Your task to perform on an android device: Search for vegetarian restaurants on Maps Image 0: 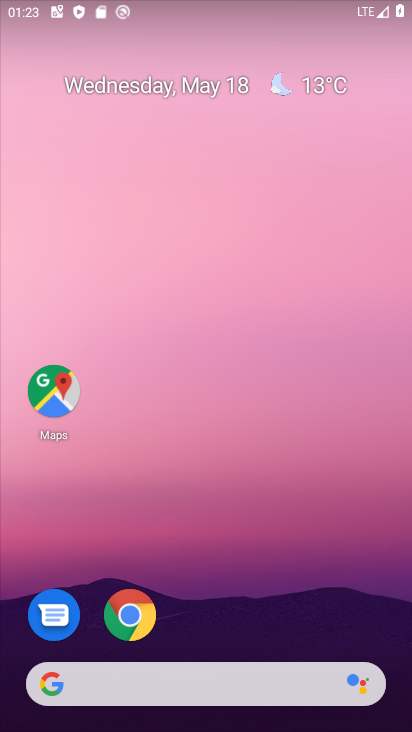
Step 0: press home button
Your task to perform on an android device: Search for vegetarian restaurants on Maps Image 1: 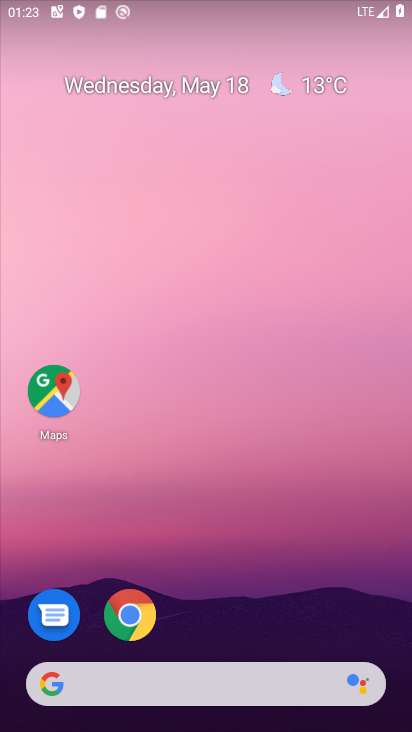
Step 1: click (58, 398)
Your task to perform on an android device: Search for vegetarian restaurants on Maps Image 2: 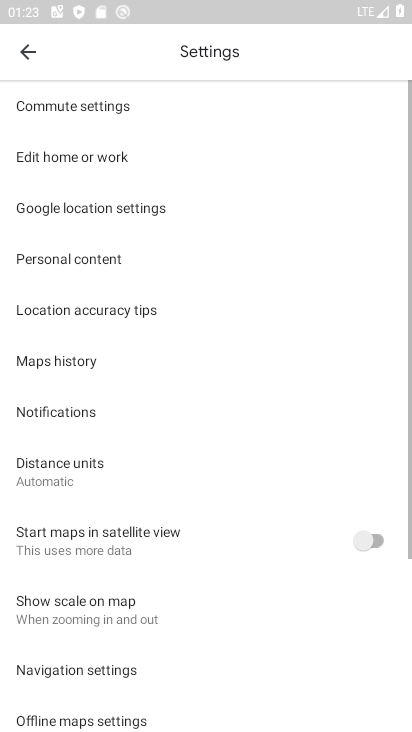
Step 2: click (30, 45)
Your task to perform on an android device: Search for vegetarian restaurants on Maps Image 3: 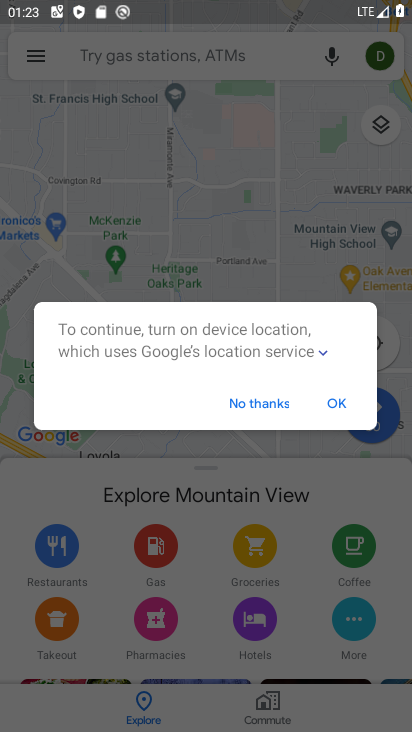
Step 3: click (333, 403)
Your task to perform on an android device: Search for vegetarian restaurants on Maps Image 4: 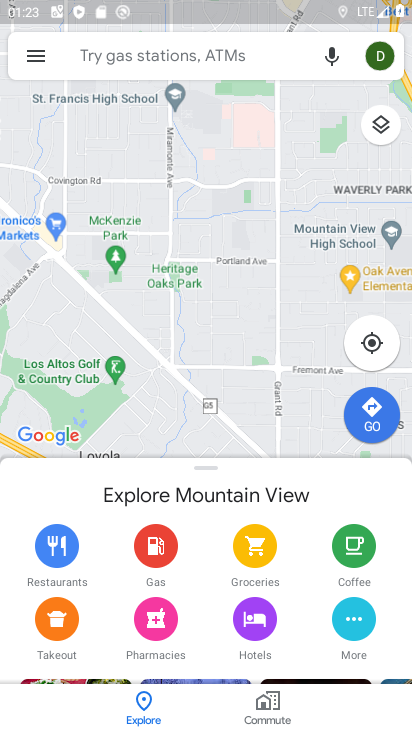
Step 4: click (212, 53)
Your task to perform on an android device: Search for vegetarian restaurants on Maps Image 5: 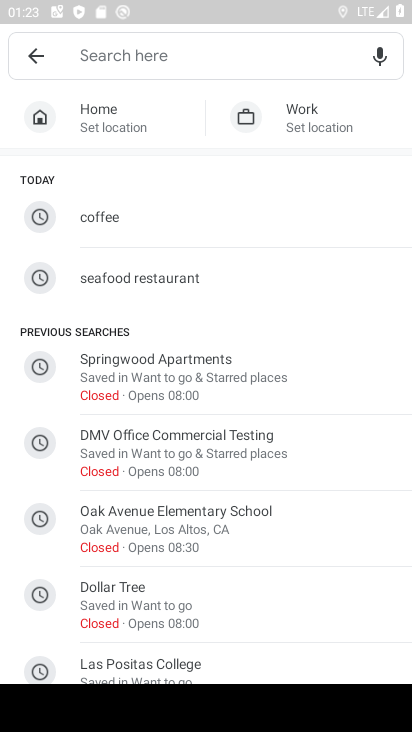
Step 5: drag from (240, 575) to (321, 254)
Your task to perform on an android device: Search for vegetarian restaurants on Maps Image 6: 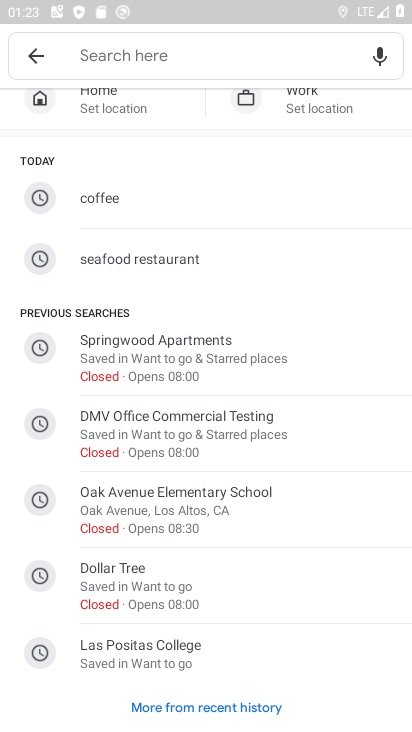
Step 6: click (169, 48)
Your task to perform on an android device: Search for vegetarian restaurants on Maps Image 7: 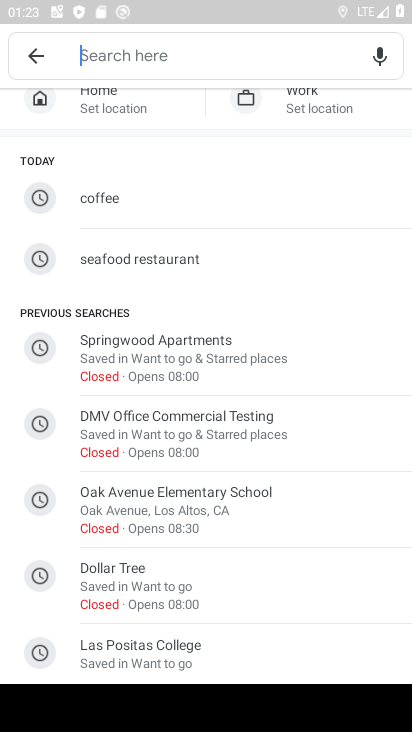
Step 7: type "vegetarian"
Your task to perform on an android device: Search for vegetarian restaurants on Maps Image 8: 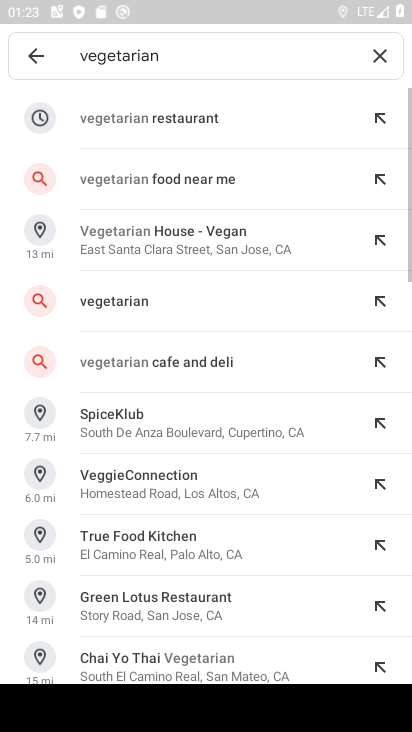
Step 8: click (199, 127)
Your task to perform on an android device: Search for vegetarian restaurants on Maps Image 9: 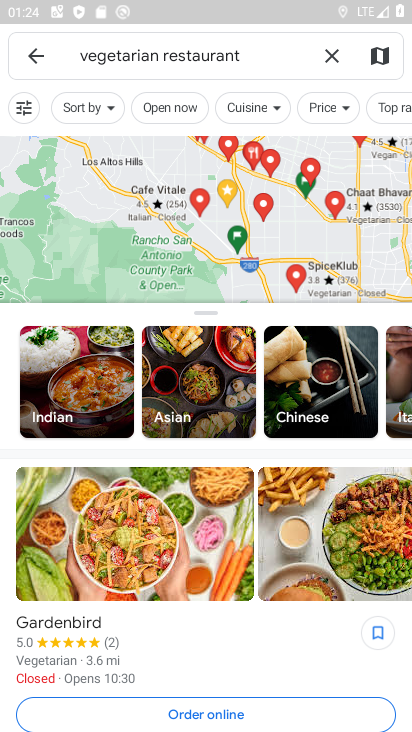
Step 9: task complete